Your task to perform on an android device: Open Yahoo.com Image 0: 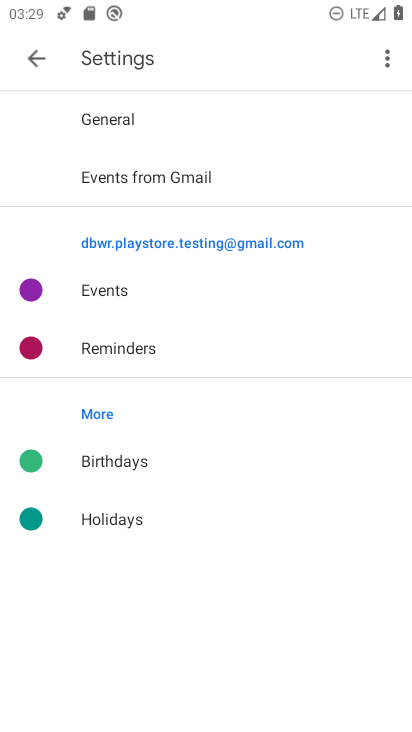
Step 0: press home button
Your task to perform on an android device: Open Yahoo.com Image 1: 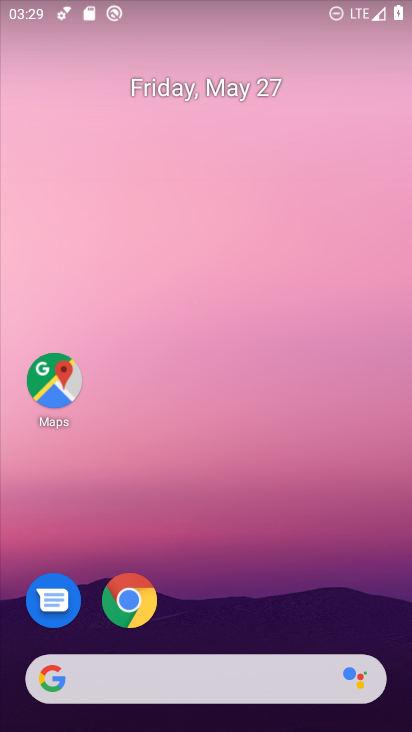
Step 1: click (130, 605)
Your task to perform on an android device: Open Yahoo.com Image 2: 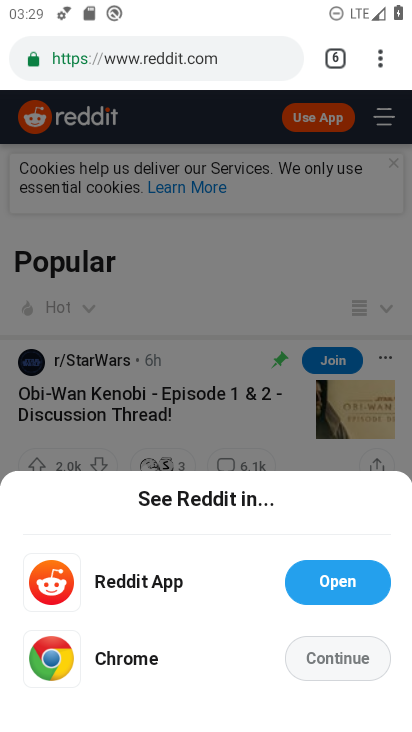
Step 2: click (381, 60)
Your task to perform on an android device: Open Yahoo.com Image 3: 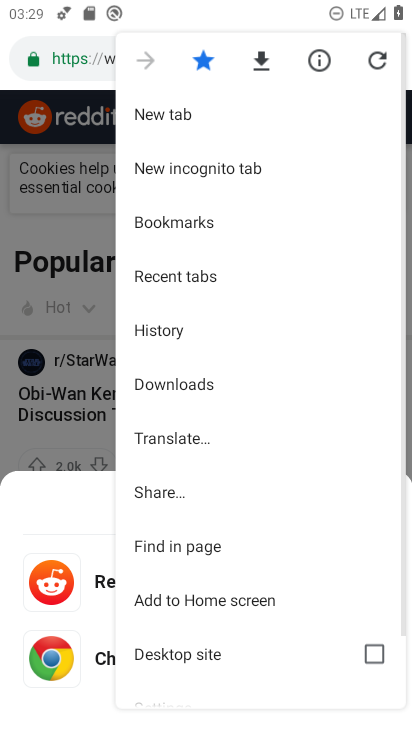
Step 3: click (174, 110)
Your task to perform on an android device: Open Yahoo.com Image 4: 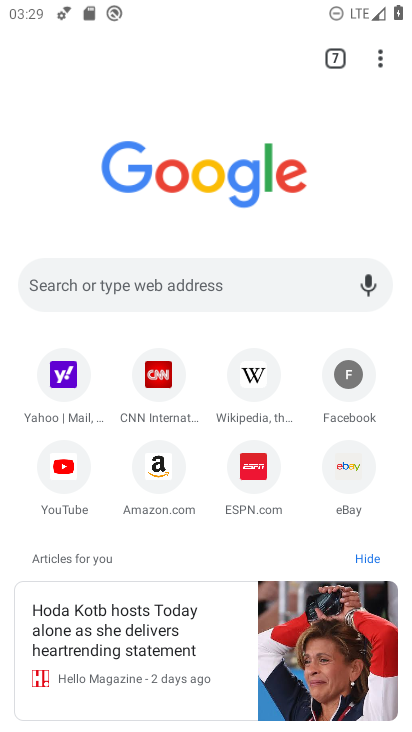
Step 4: click (59, 375)
Your task to perform on an android device: Open Yahoo.com Image 5: 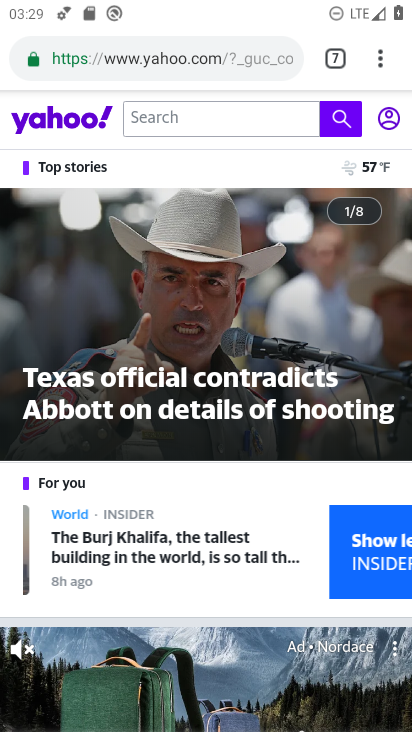
Step 5: task complete